Your task to perform on an android device: Open ESPN.com Image 0: 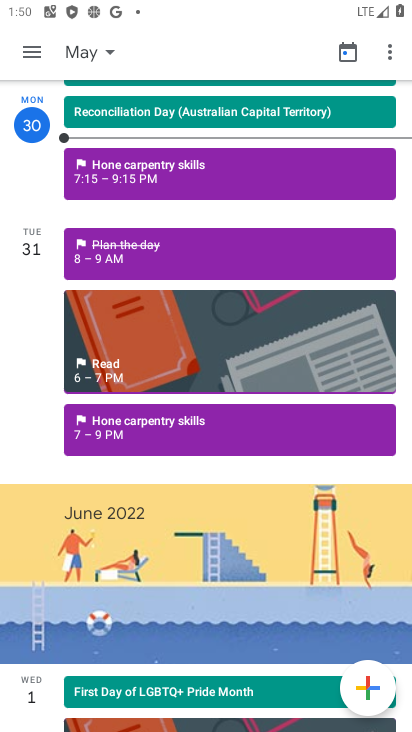
Step 0: press home button
Your task to perform on an android device: Open ESPN.com Image 1: 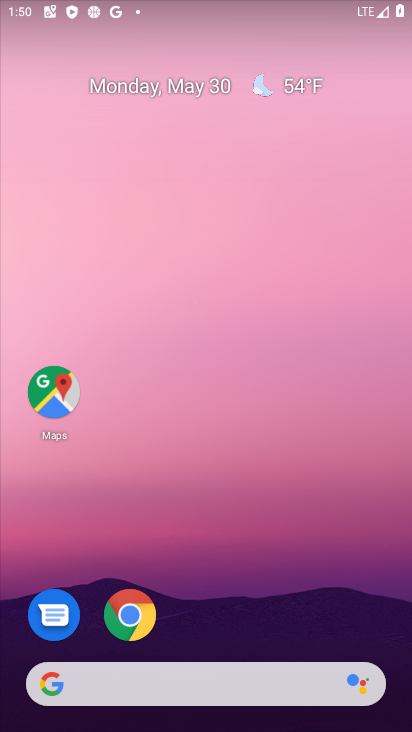
Step 1: click (129, 617)
Your task to perform on an android device: Open ESPN.com Image 2: 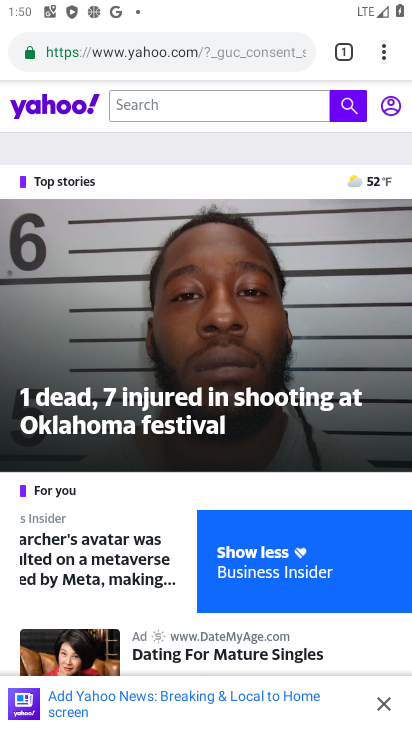
Step 2: click (339, 41)
Your task to perform on an android device: Open ESPN.com Image 3: 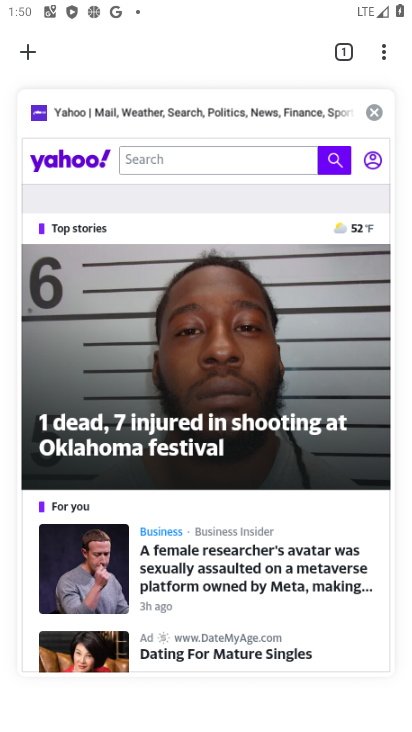
Step 3: click (379, 116)
Your task to perform on an android device: Open ESPN.com Image 4: 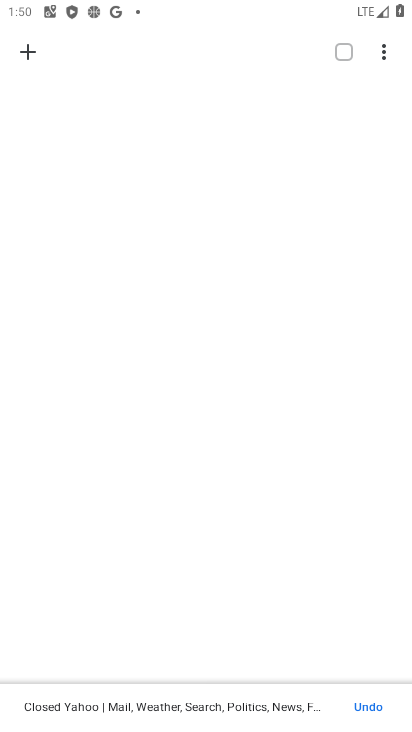
Step 4: click (31, 51)
Your task to perform on an android device: Open ESPN.com Image 5: 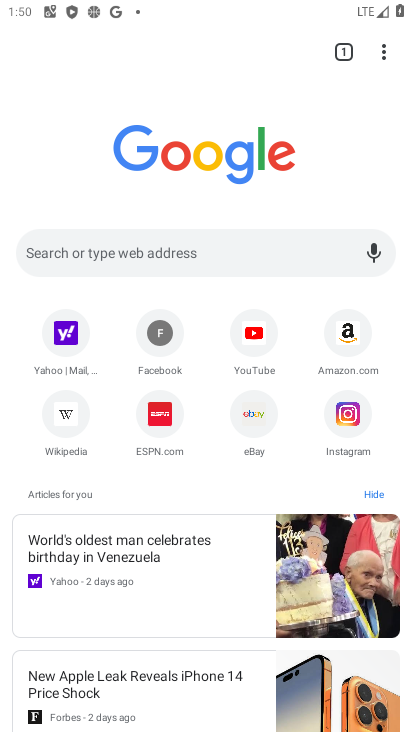
Step 5: click (164, 427)
Your task to perform on an android device: Open ESPN.com Image 6: 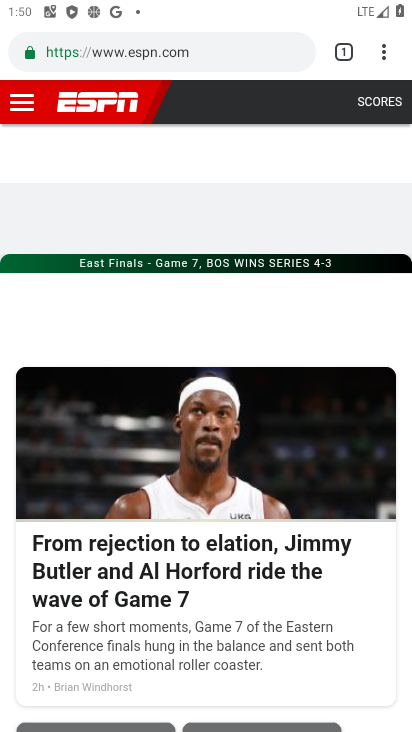
Step 6: task complete